Your task to perform on an android device: change the clock display to digital Image 0: 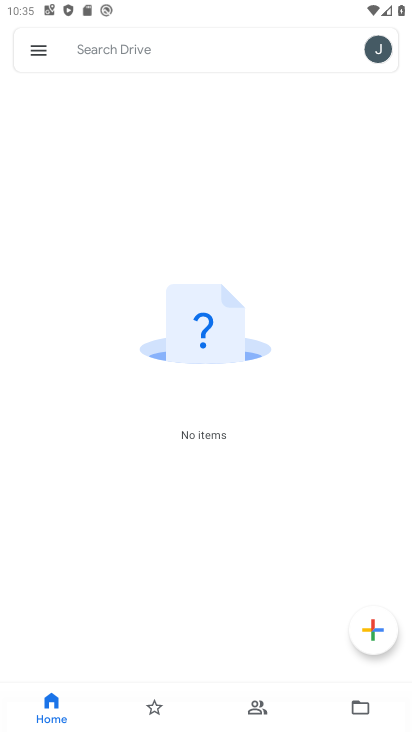
Step 0: press home button
Your task to perform on an android device: change the clock display to digital Image 1: 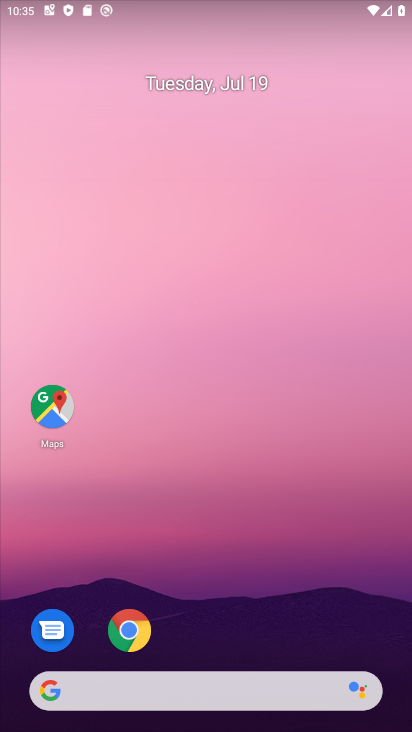
Step 1: drag from (31, 603) to (193, 48)
Your task to perform on an android device: change the clock display to digital Image 2: 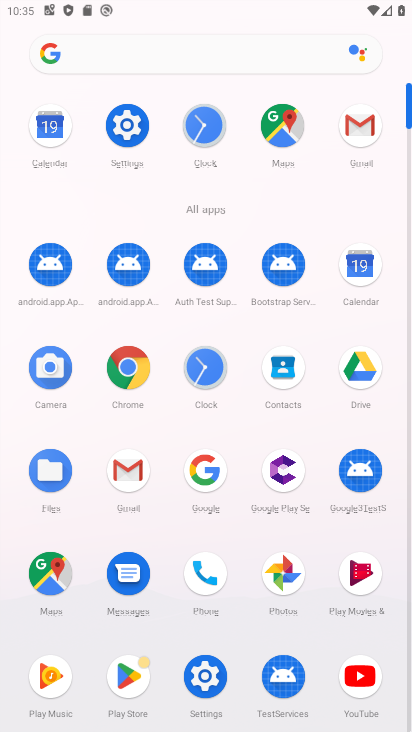
Step 2: click (215, 136)
Your task to perform on an android device: change the clock display to digital Image 3: 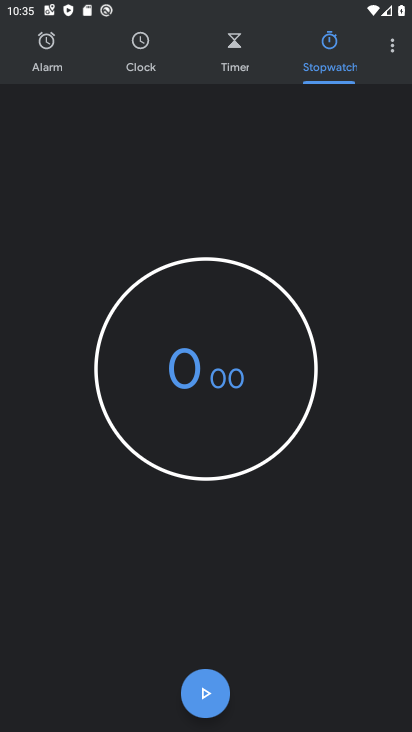
Step 3: click (397, 40)
Your task to perform on an android device: change the clock display to digital Image 4: 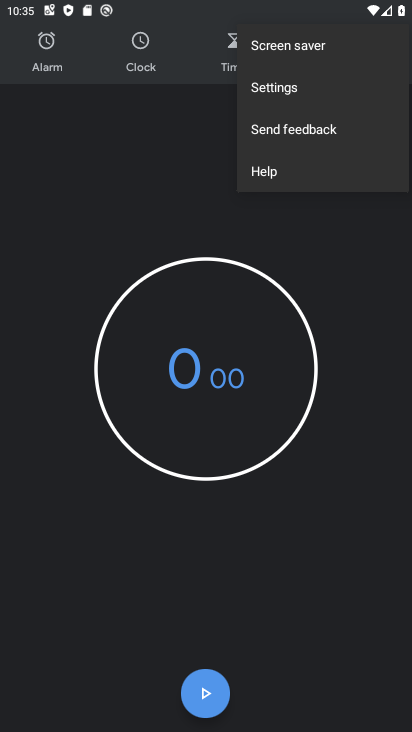
Step 4: click (270, 96)
Your task to perform on an android device: change the clock display to digital Image 5: 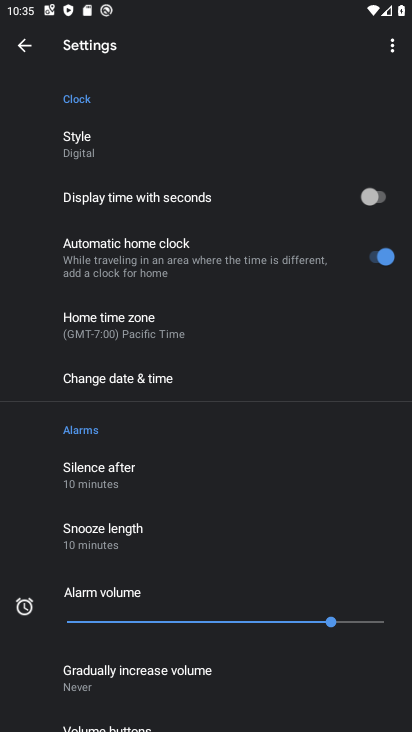
Step 5: click (82, 151)
Your task to perform on an android device: change the clock display to digital Image 6: 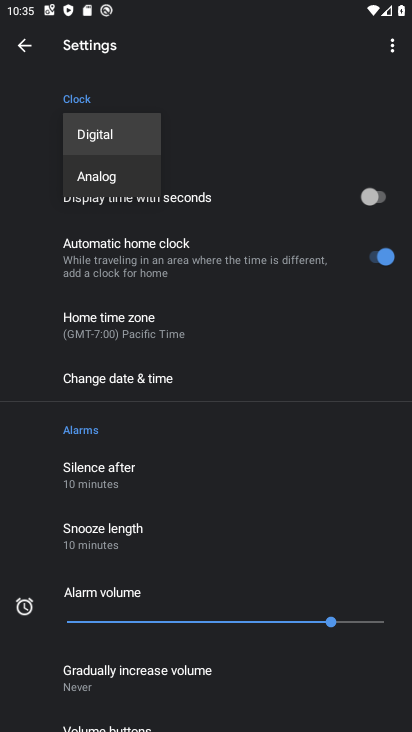
Step 6: click (132, 135)
Your task to perform on an android device: change the clock display to digital Image 7: 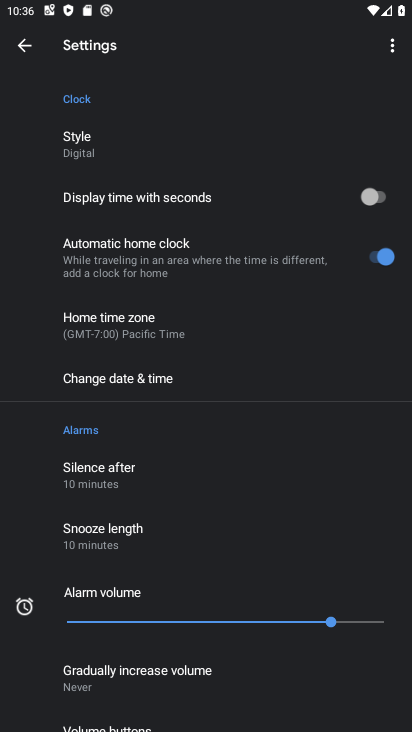
Step 7: task complete